Your task to perform on an android device: change the clock display to digital Image 0: 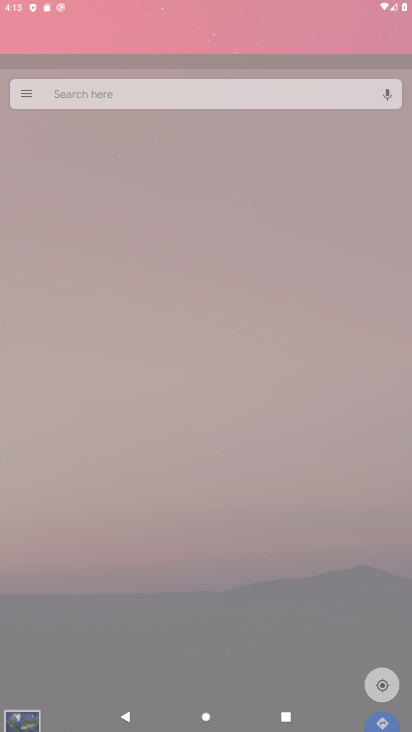
Step 0: press home button
Your task to perform on an android device: change the clock display to digital Image 1: 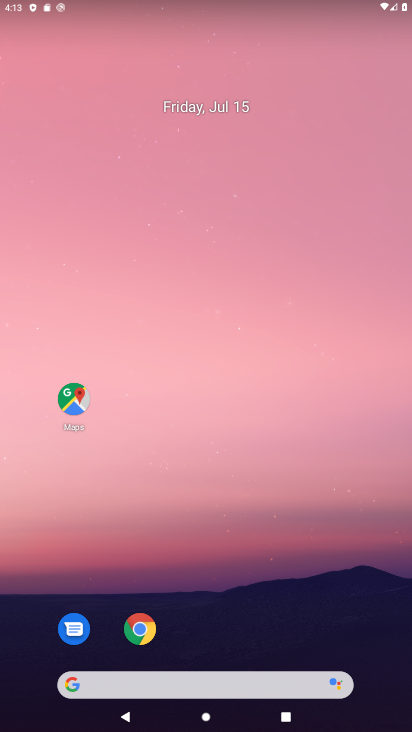
Step 1: press home button
Your task to perform on an android device: change the clock display to digital Image 2: 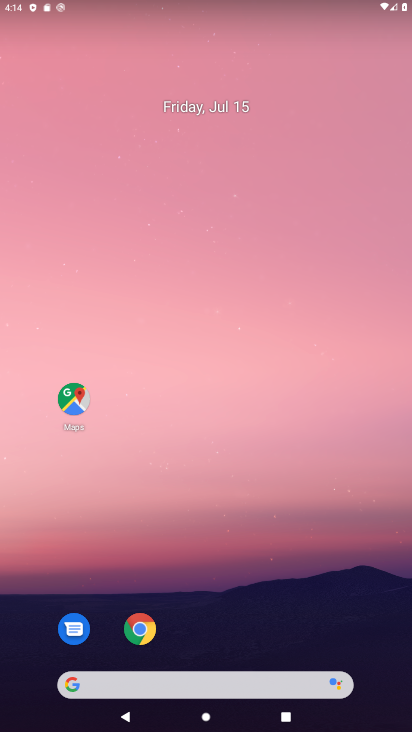
Step 2: drag from (206, 627) to (214, 11)
Your task to perform on an android device: change the clock display to digital Image 3: 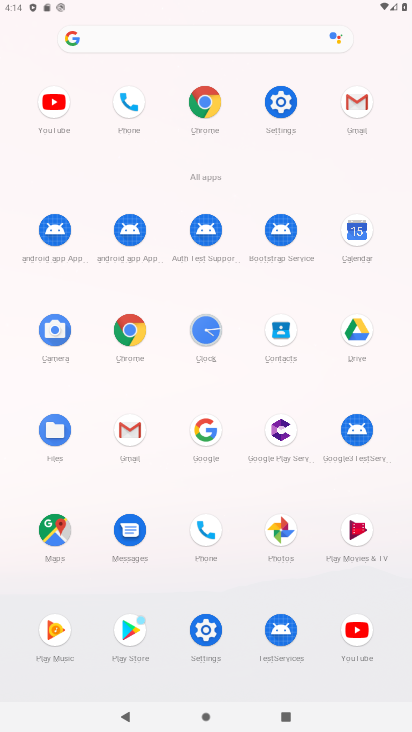
Step 3: click (205, 343)
Your task to perform on an android device: change the clock display to digital Image 4: 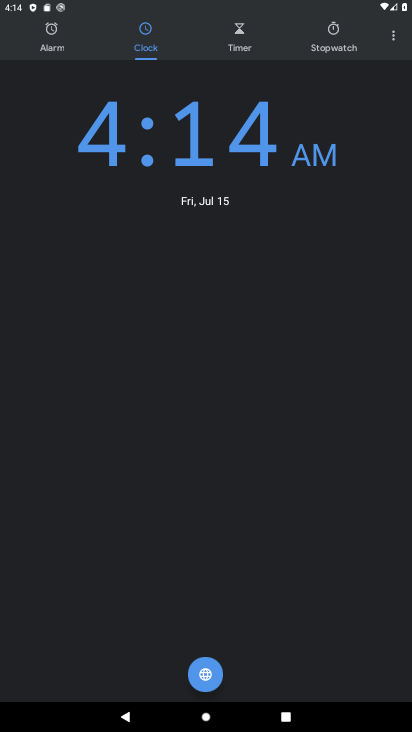
Step 4: click (392, 38)
Your task to perform on an android device: change the clock display to digital Image 5: 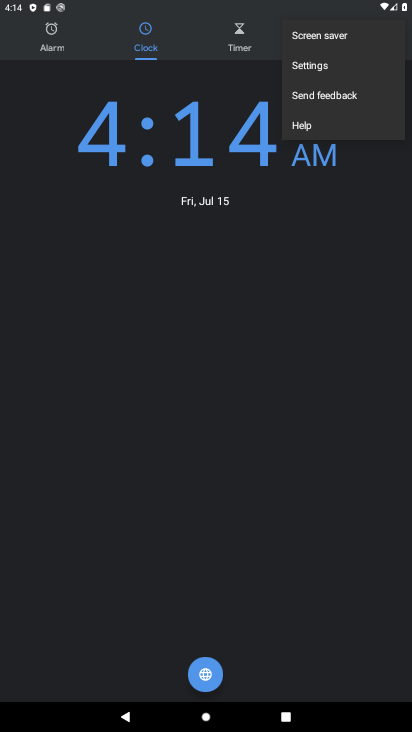
Step 5: click (323, 63)
Your task to perform on an android device: change the clock display to digital Image 6: 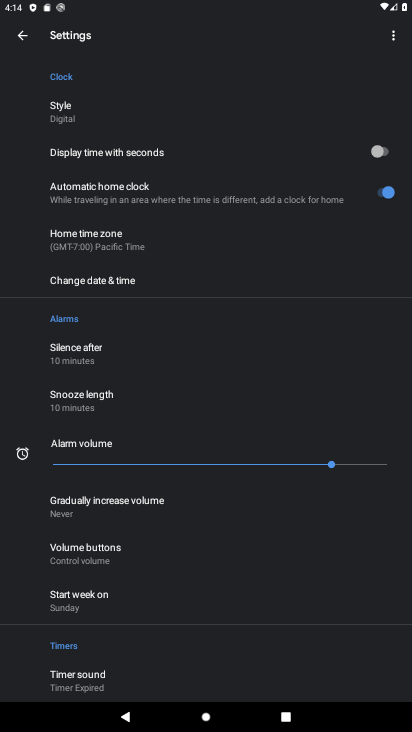
Step 6: click (75, 114)
Your task to perform on an android device: change the clock display to digital Image 7: 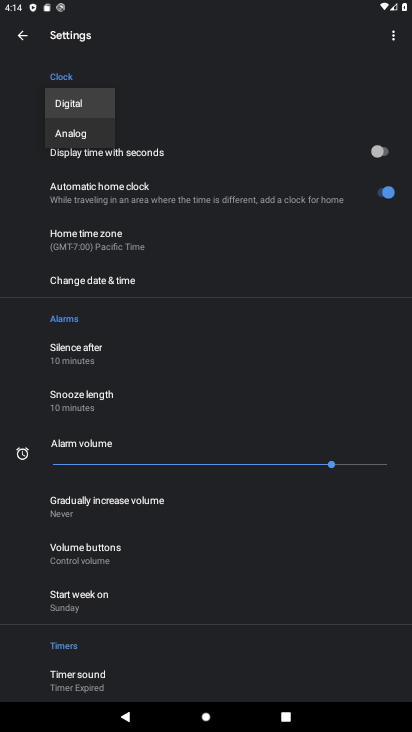
Step 7: click (75, 114)
Your task to perform on an android device: change the clock display to digital Image 8: 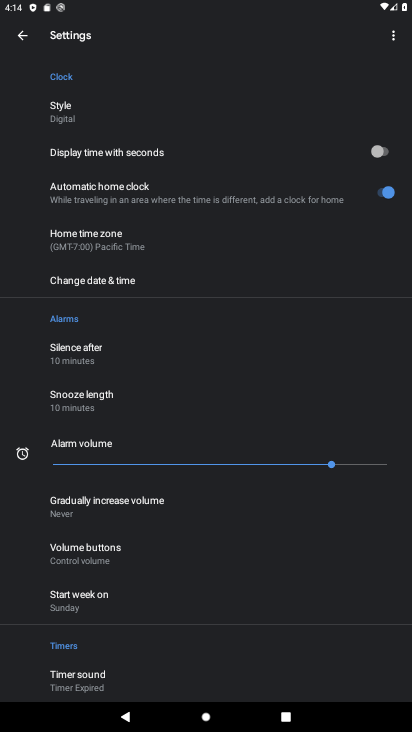
Step 8: task complete